Your task to perform on an android device: open a bookmark in the chrome app Image 0: 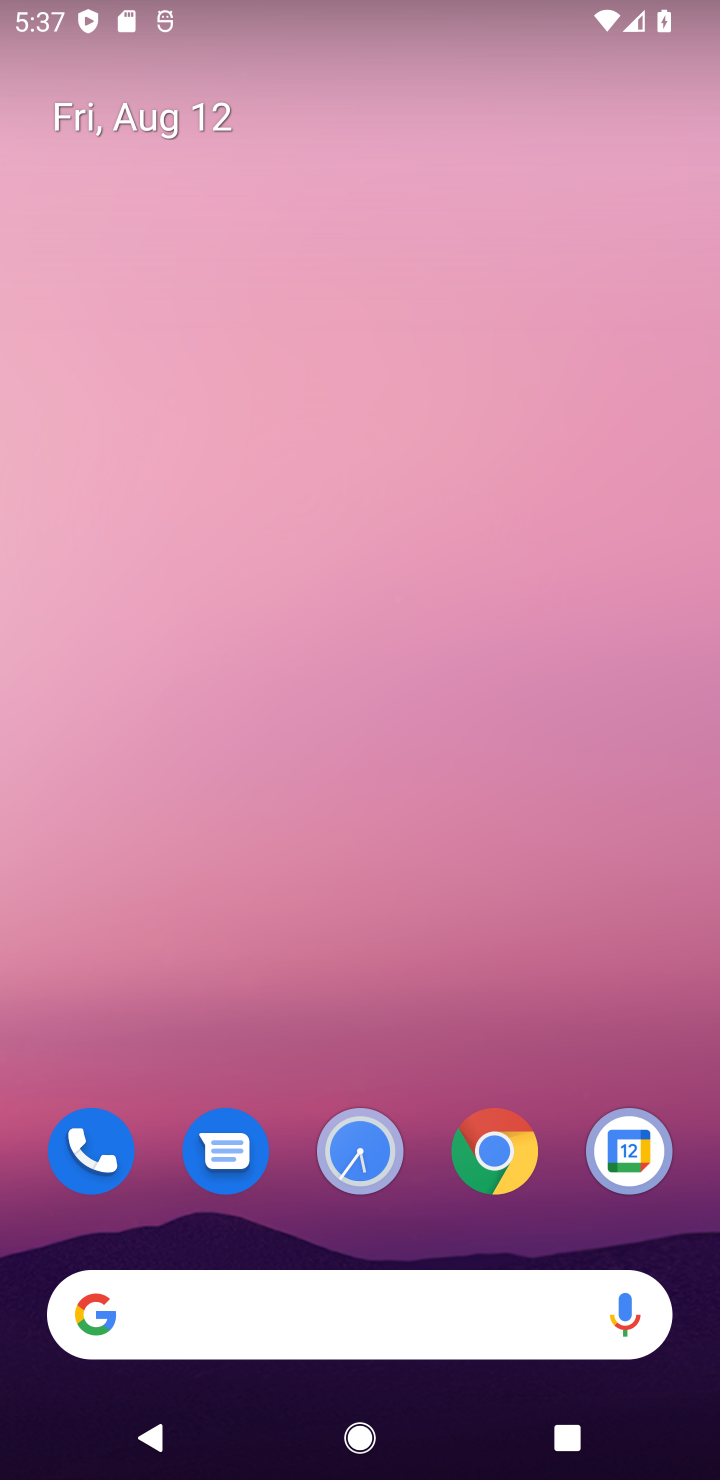
Step 0: click (360, 116)
Your task to perform on an android device: open a bookmark in the chrome app Image 1: 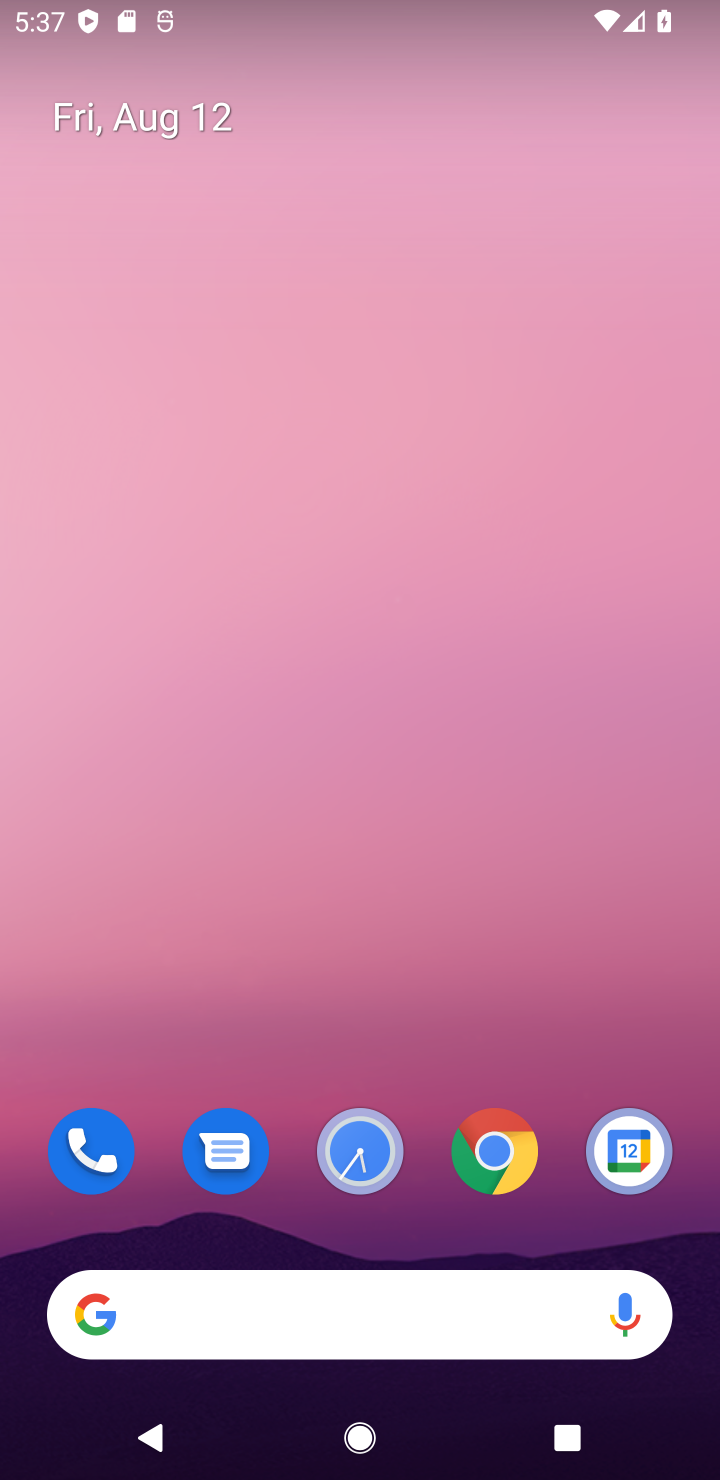
Step 1: drag from (497, 910) to (424, 228)
Your task to perform on an android device: open a bookmark in the chrome app Image 2: 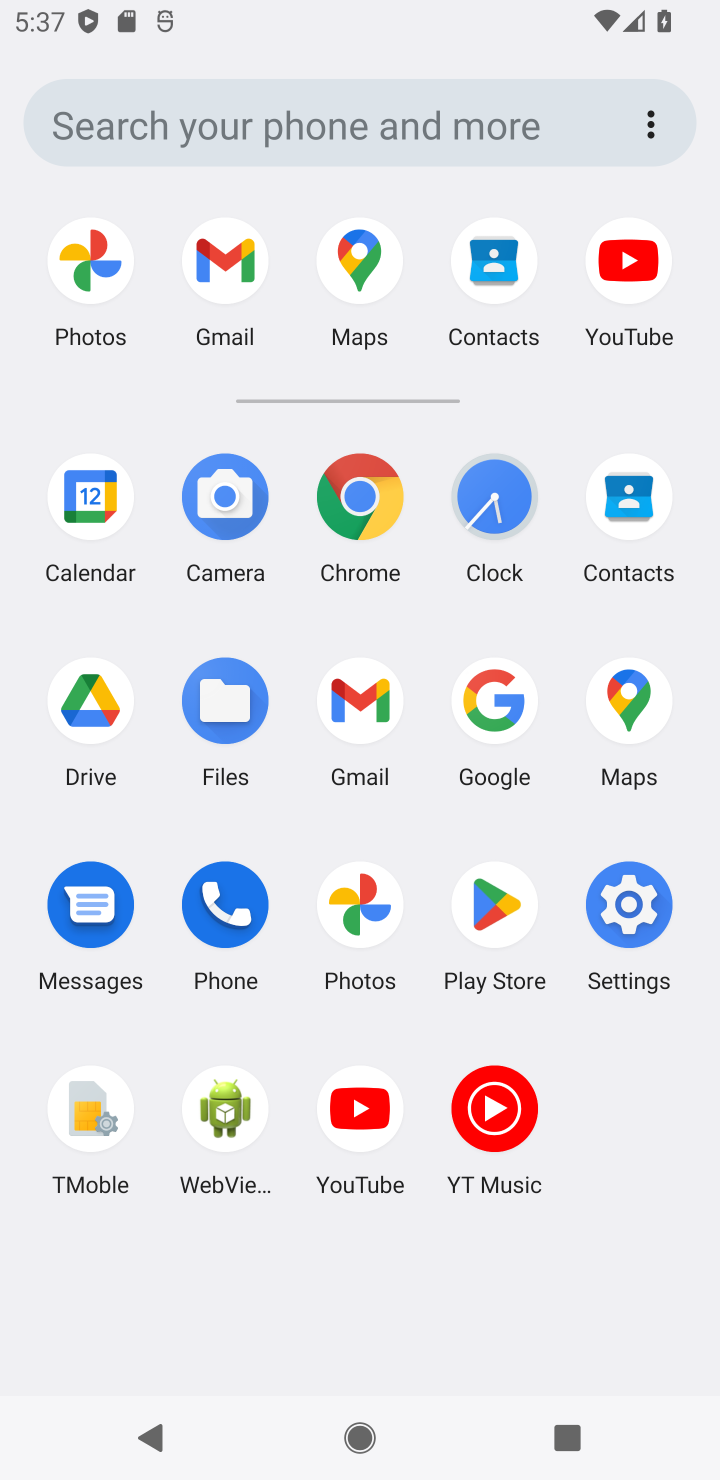
Step 2: click (371, 492)
Your task to perform on an android device: open a bookmark in the chrome app Image 3: 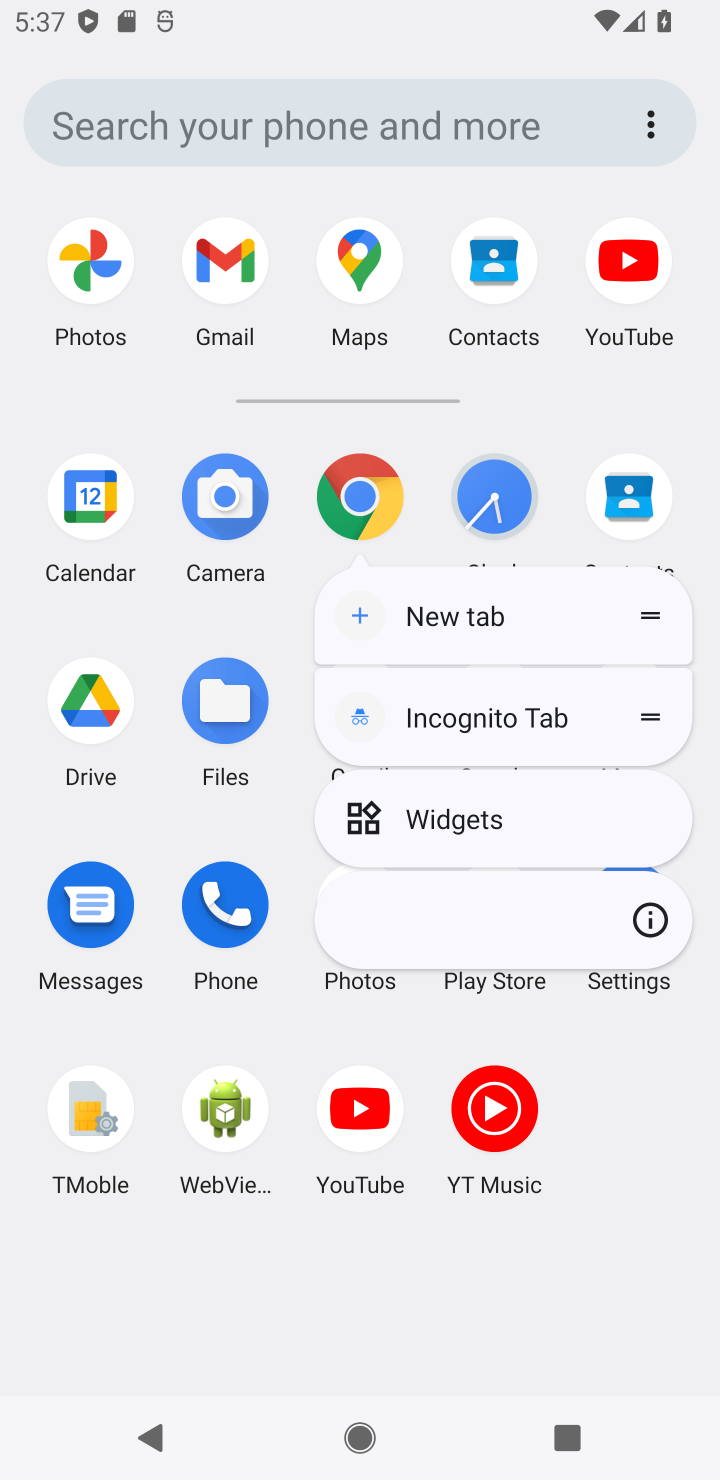
Step 3: click (371, 492)
Your task to perform on an android device: open a bookmark in the chrome app Image 4: 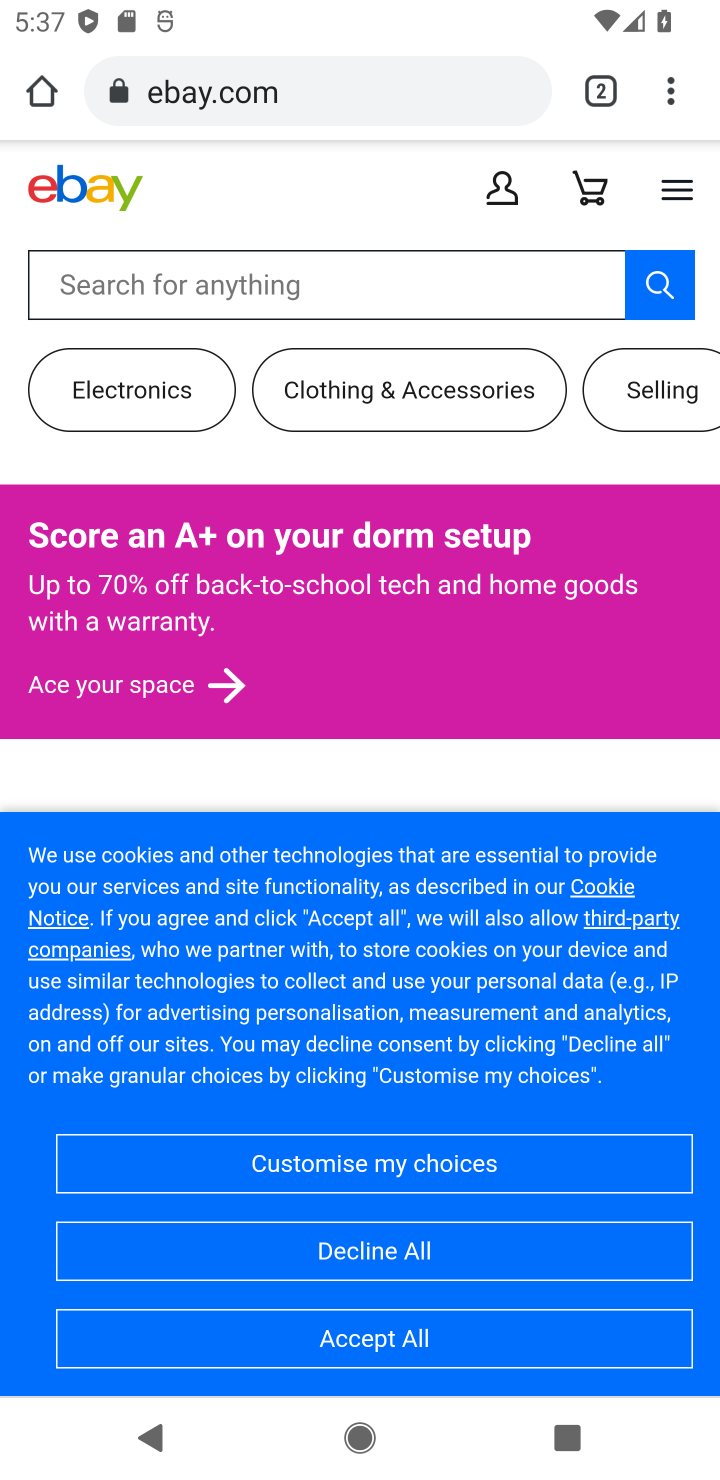
Step 4: drag from (673, 88) to (413, 658)
Your task to perform on an android device: open a bookmark in the chrome app Image 5: 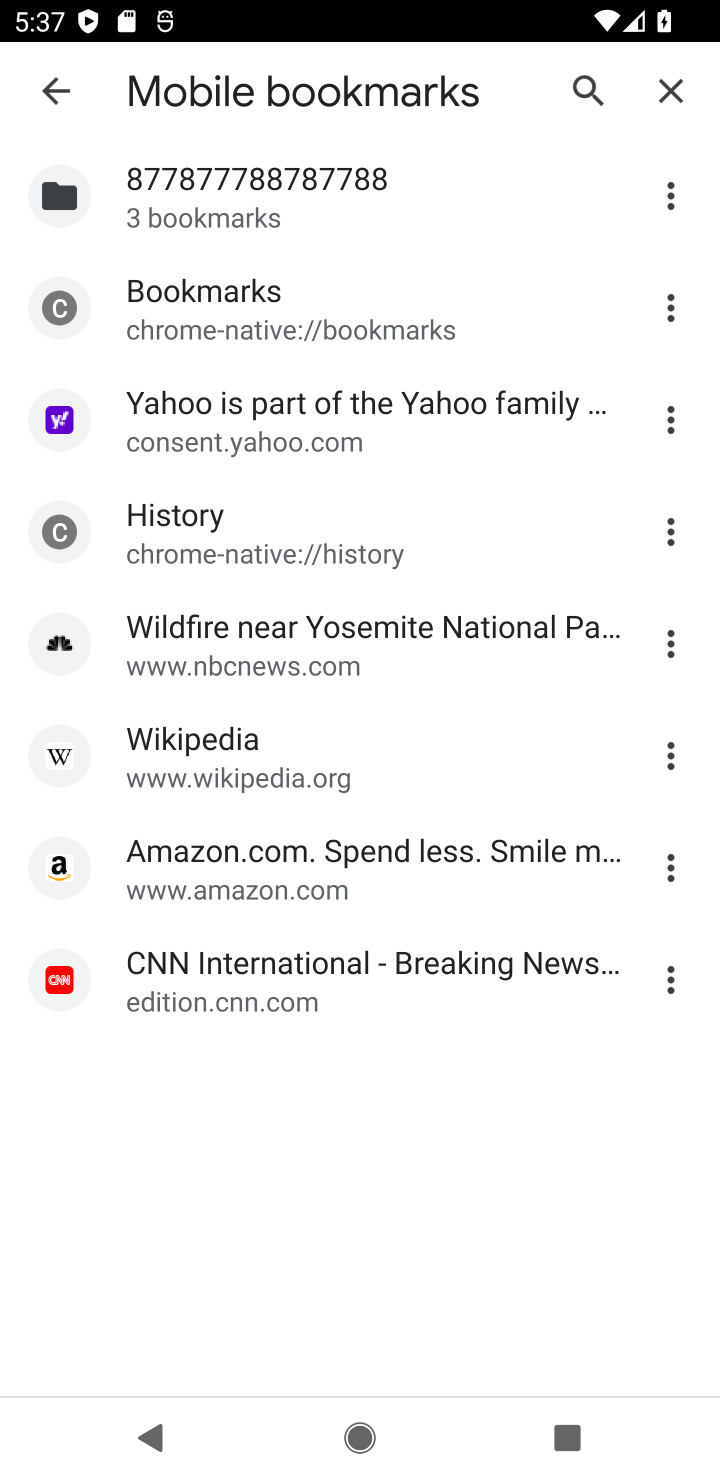
Step 5: click (303, 404)
Your task to perform on an android device: open a bookmark in the chrome app Image 6: 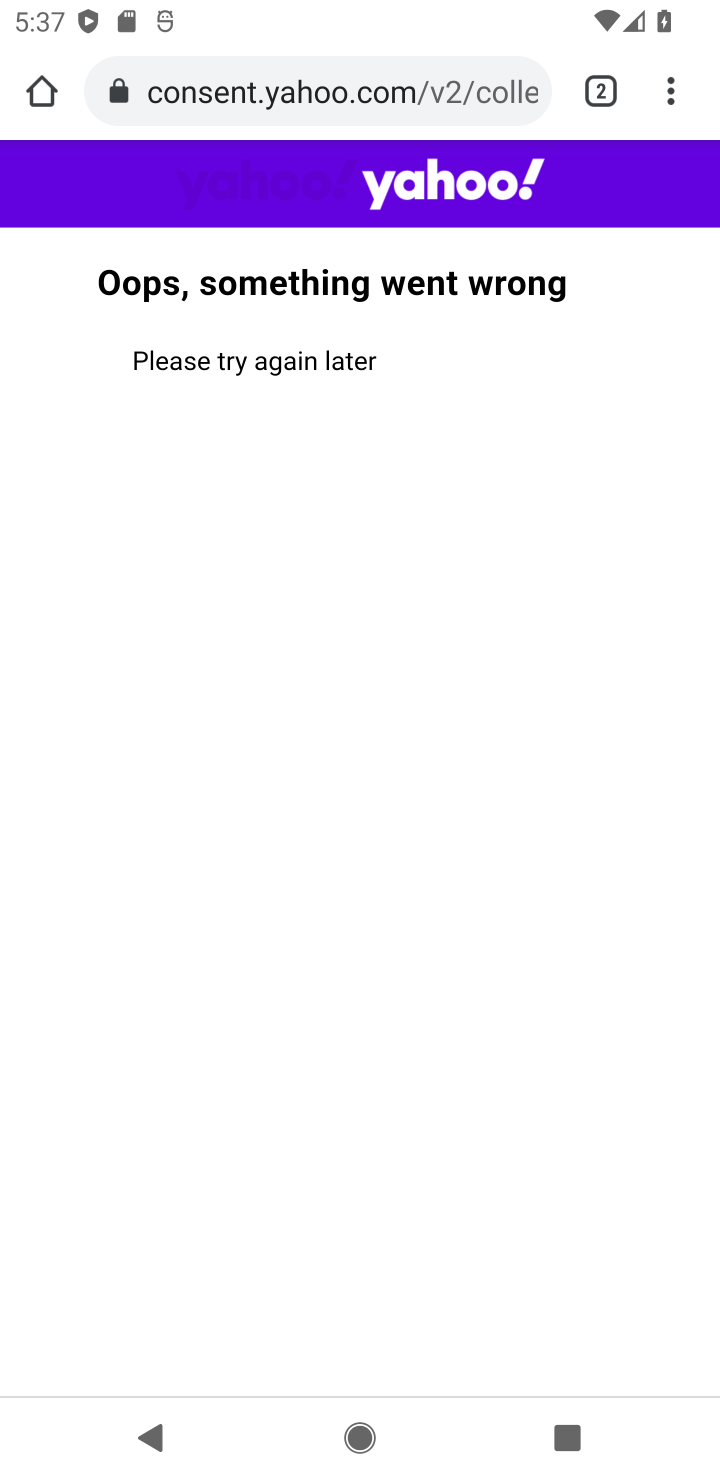
Step 6: task complete